Your task to perform on an android device: Open display settings Image 0: 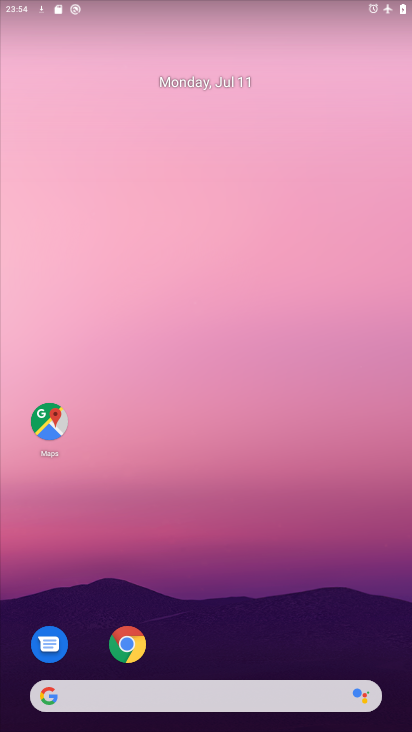
Step 0: drag from (312, 575) to (310, 223)
Your task to perform on an android device: Open display settings Image 1: 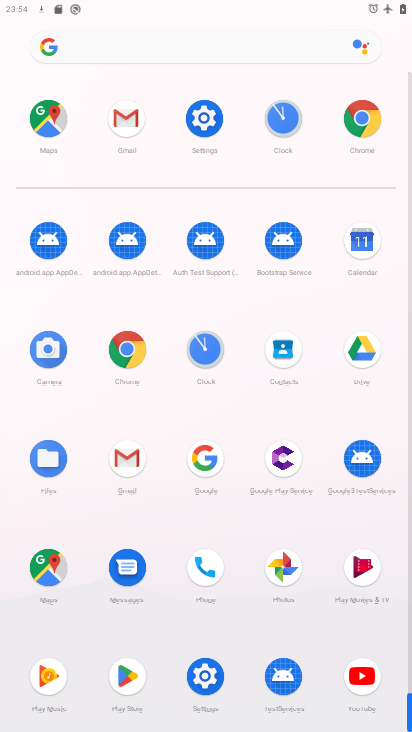
Step 1: click (212, 125)
Your task to perform on an android device: Open display settings Image 2: 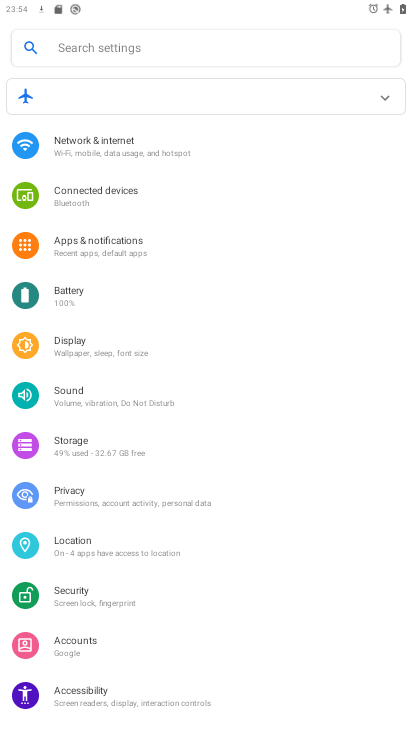
Step 2: click (81, 343)
Your task to perform on an android device: Open display settings Image 3: 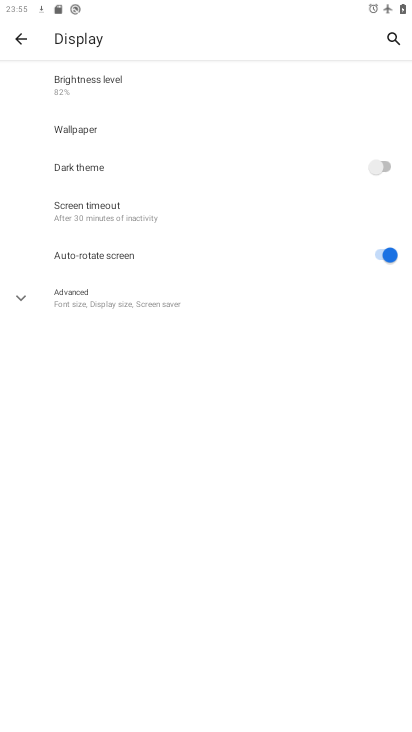
Step 3: task complete